Your task to perform on an android device: Go to battery settings Image 0: 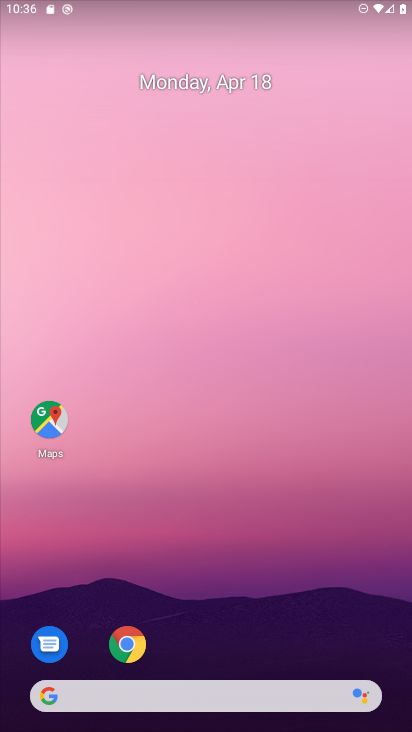
Step 0: drag from (212, 623) to (239, 46)
Your task to perform on an android device: Go to battery settings Image 1: 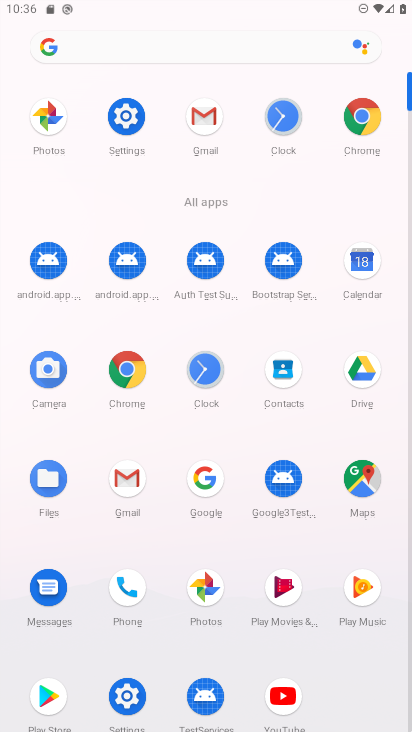
Step 1: click (124, 139)
Your task to perform on an android device: Go to battery settings Image 2: 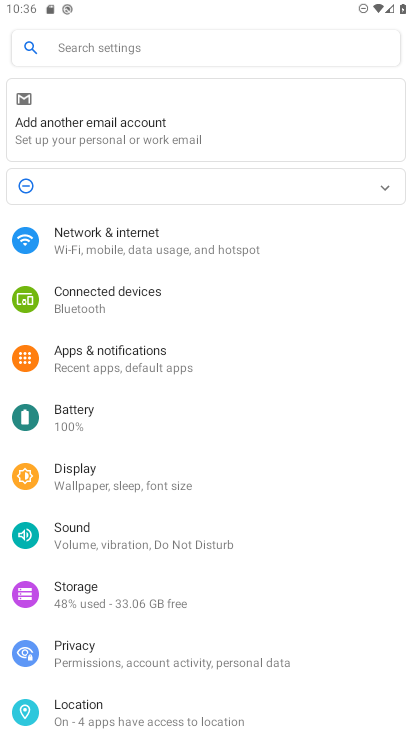
Step 2: click (106, 405)
Your task to perform on an android device: Go to battery settings Image 3: 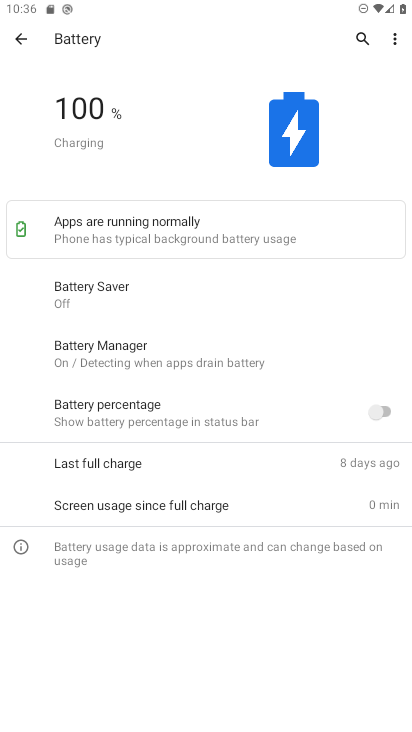
Step 3: task complete